Your task to perform on an android device: allow cookies in the chrome app Image 0: 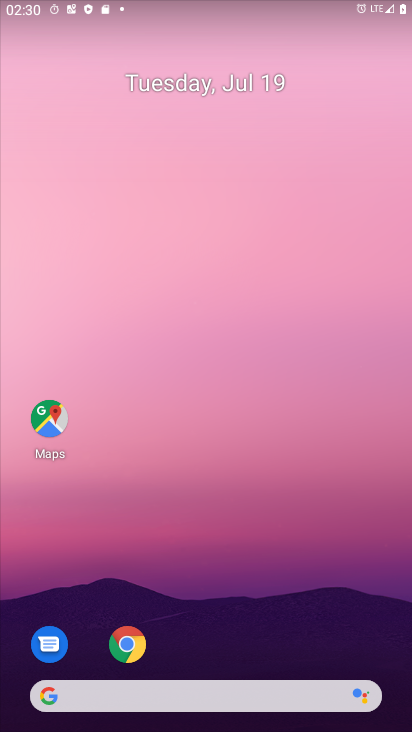
Step 0: click (124, 648)
Your task to perform on an android device: allow cookies in the chrome app Image 1: 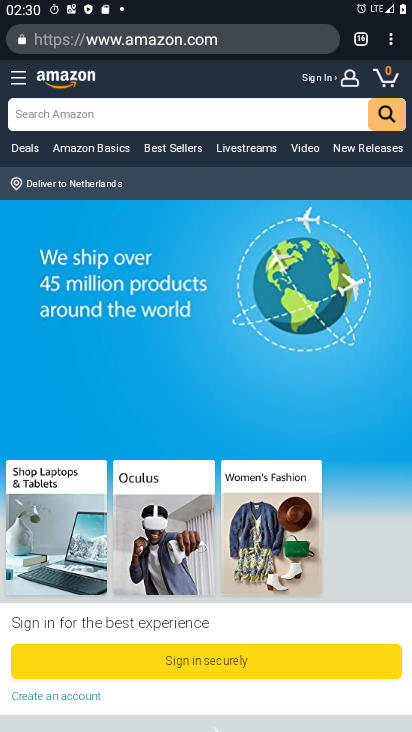
Step 1: click (393, 43)
Your task to perform on an android device: allow cookies in the chrome app Image 2: 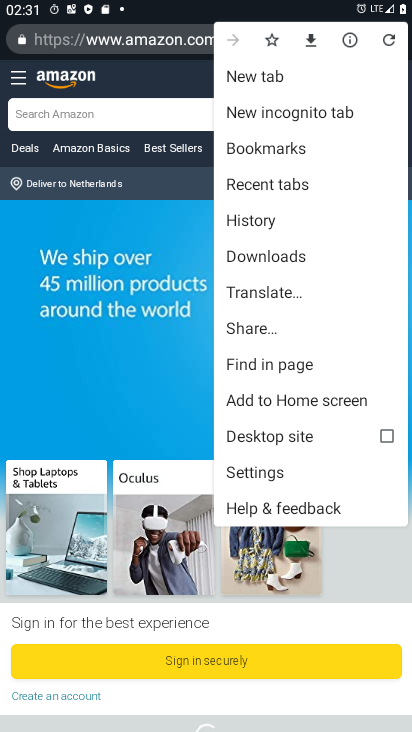
Step 2: click (251, 469)
Your task to perform on an android device: allow cookies in the chrome app Image 3: 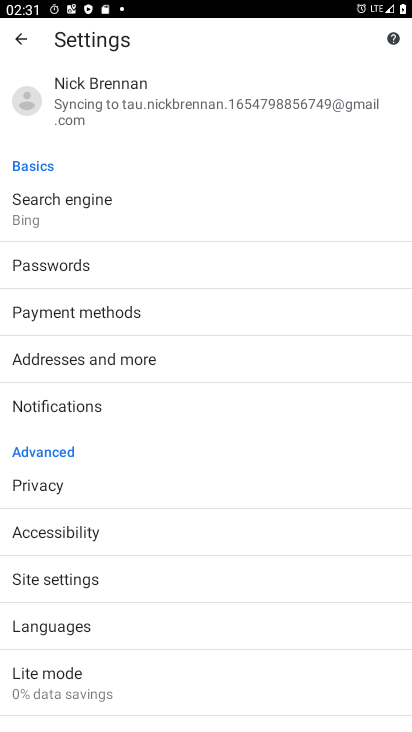
Step 3: click (62, 574)
Your task to perform on an android device: allow cookies in the chrome app Image 4: 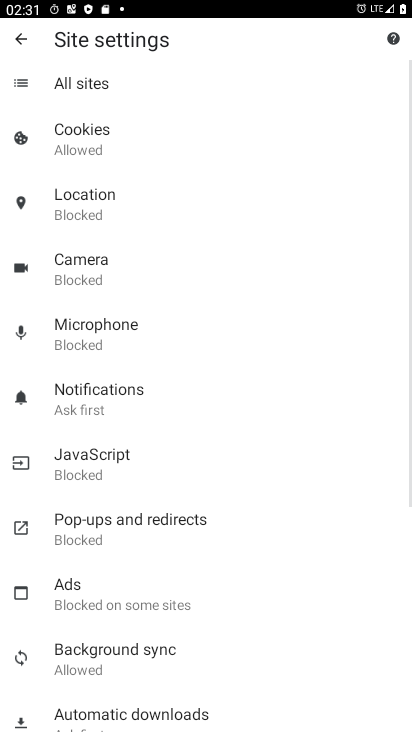
Step 4: click (85, 133)
Your task to perform on an android device: allow cookies in the chrome app Image 5: 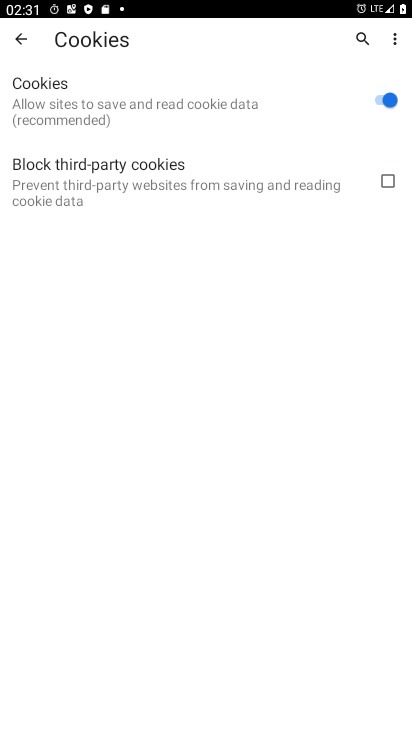
Step 5: task complete